Your task to perform on an android device: change the clock display to digital Image 0: 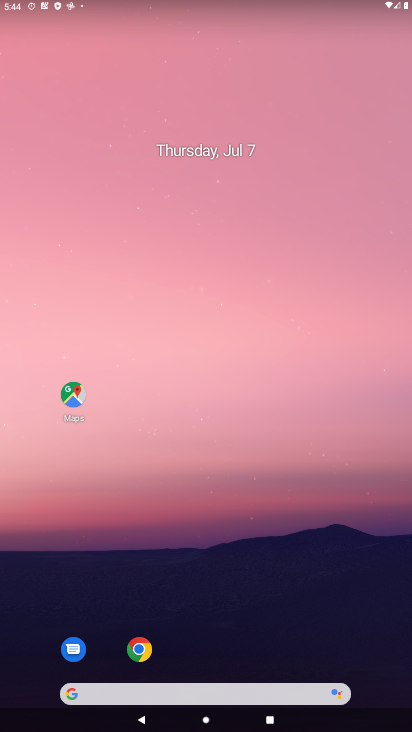
Step 0: drag from (388, 566) to (318, 1)
Your task to perform on an android device: change the clock display to digital Image 1: 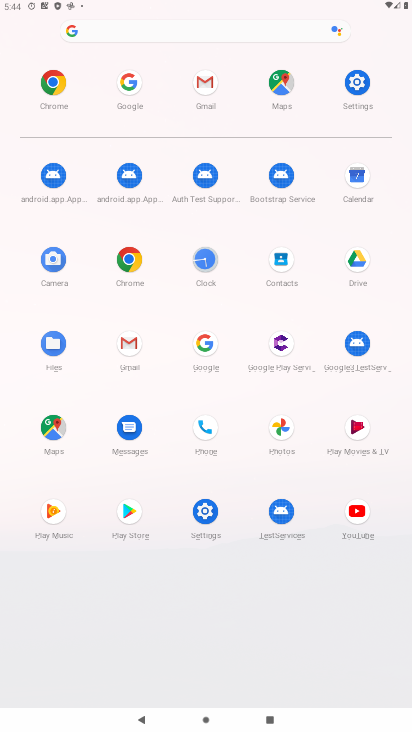
Step 1: click (197, 270)
Your task to perform on an android device: change the clock display to digital Image 2: 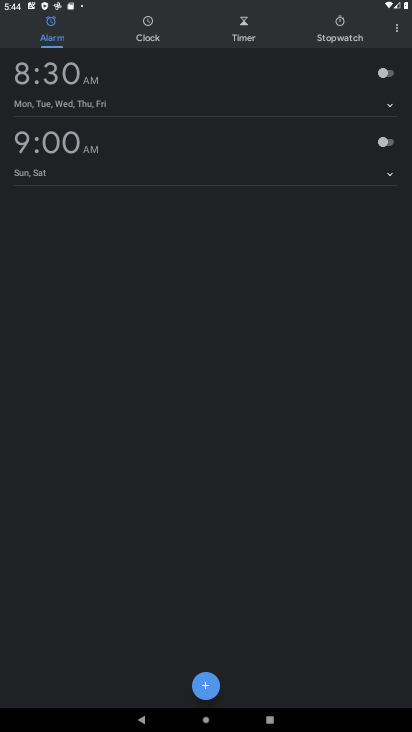
Step 2: click (401, 29)
Your task to perform on an android device: change the clock display to digital Image 3: 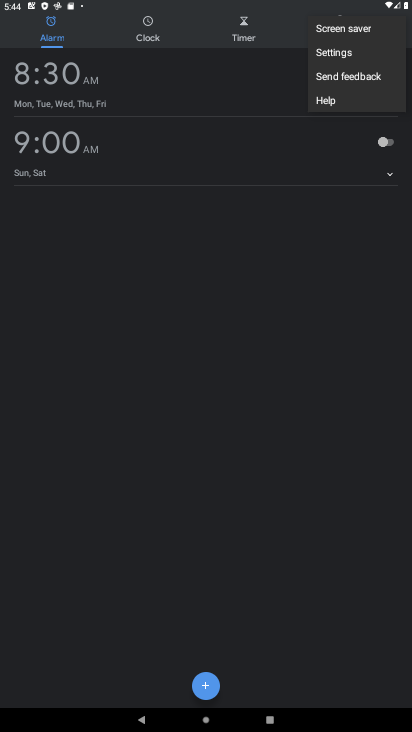
Step 3: click (341, 51)
Your task to perform on an android device: change the clock display to digital Image 4: 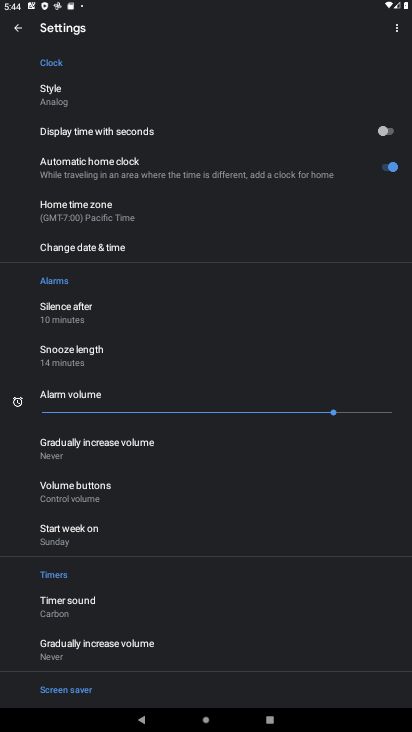
Step 4: click (58, 94)
Your task to perform on an android device: change the clock display to digital Image 5: 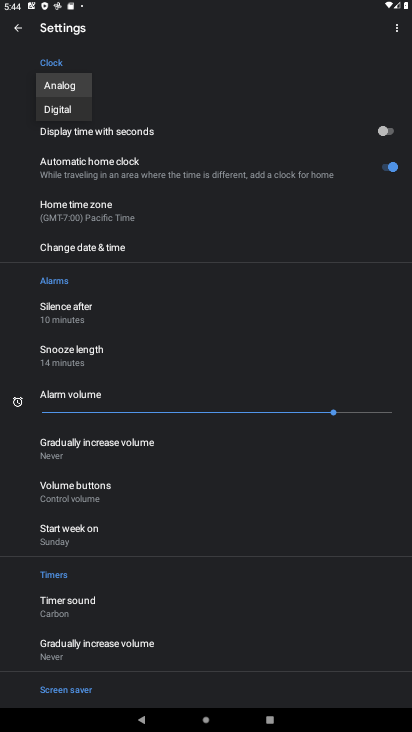
Step 5: click (65, 106)
Your task to perform on an android device: change the clock display to digital Image 6: 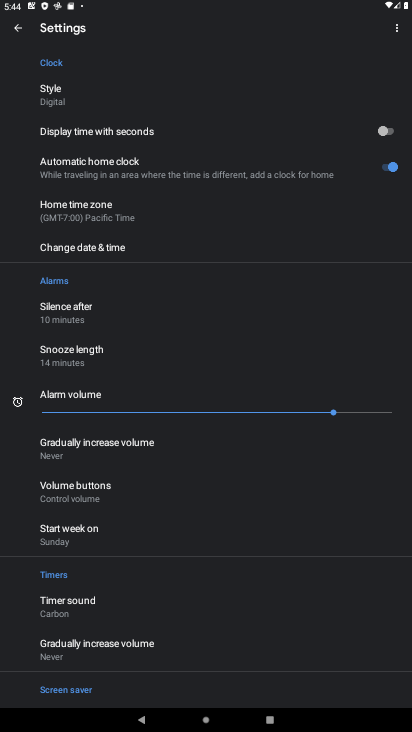
Step 6: task complete